Your task to perform on an android device: Go to location settings Image 0: 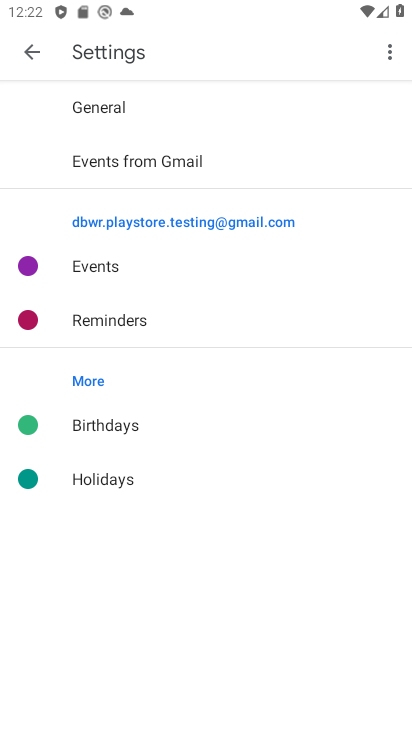
Step 0: press home button
Your task to perform on an android device: Go to location settings Image 1: 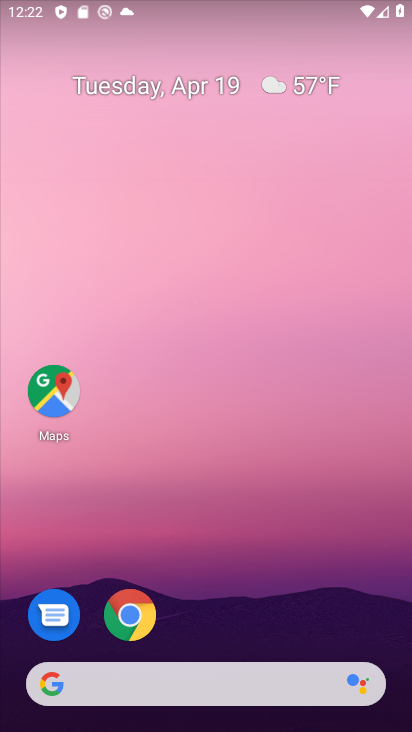
Step 1: drag from (224, 597) to (225, 128)
Your task to perform on an android device: Go to location settings Image 2: 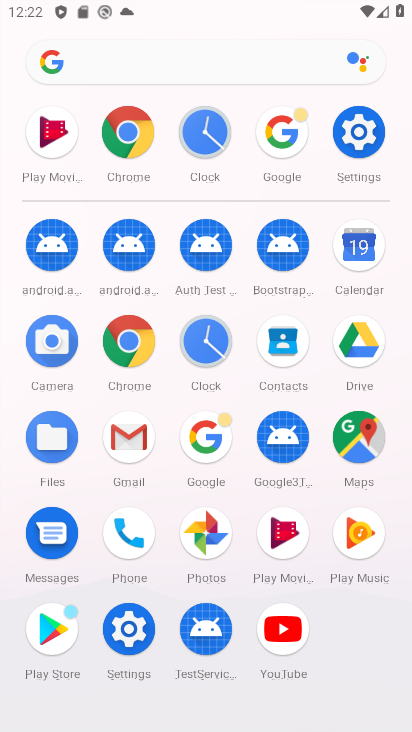
Step 2: click (349, 133)
Your task to perform on an android device: Go to location settings Image 3: 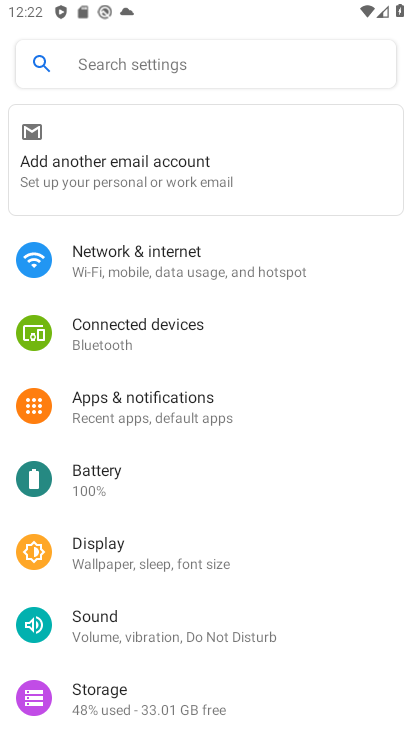
Step 3: drag from (207, 572) to (207, 308)
Your task to perform on an android device: Go to location settings Image 4: 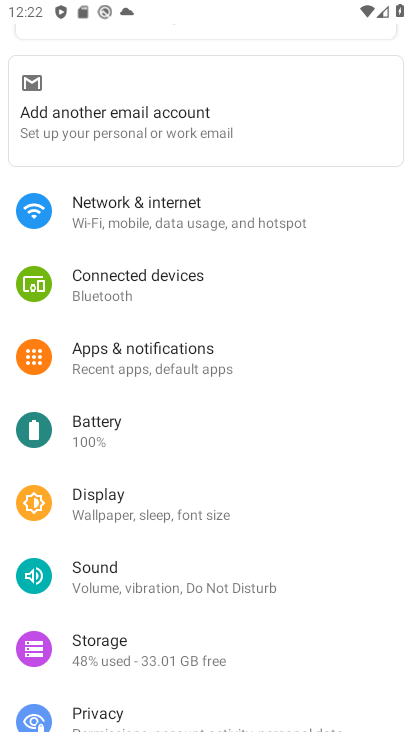
Step 4: drag from (167, 584) to (193, 251)
Your task to perform on an android device: Go to location settings Image 5: 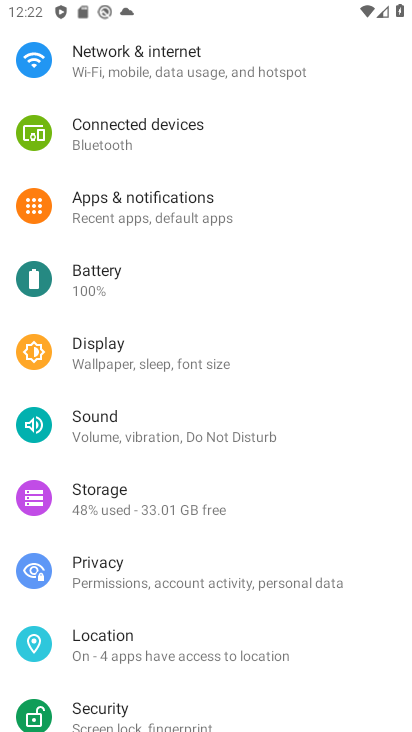
Step 5: click (177, 640)
Your task to perform on an android device: Go to location settings Image 6: 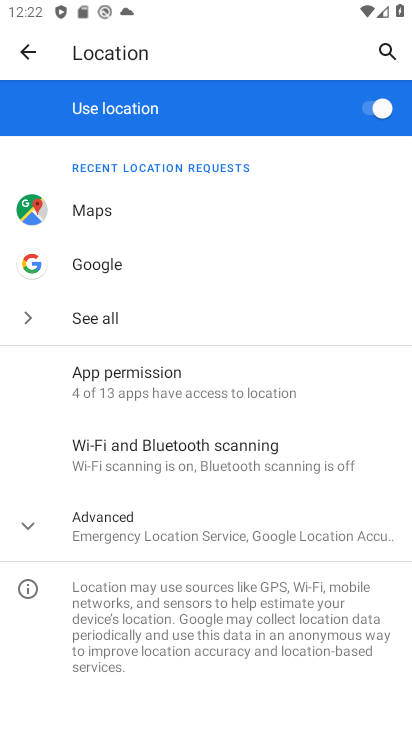
Step 6: drag from (183, 597) to (222, 233)
Your task to perform on an android device: Go to location settings Image 7: 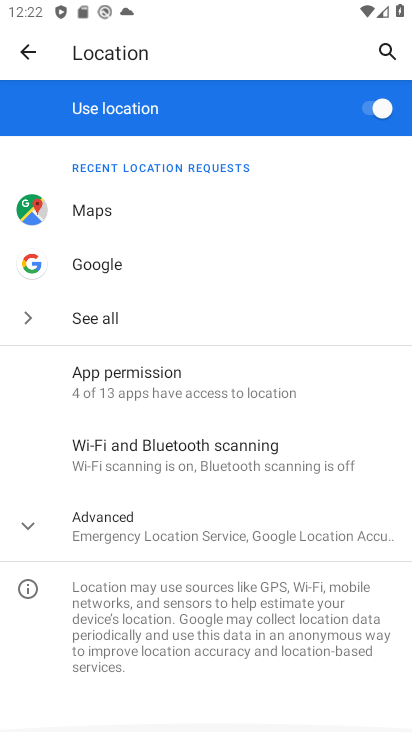
Step 7: click (143, 510)
Your task to perform on an android device: Go to location settings Image 8: 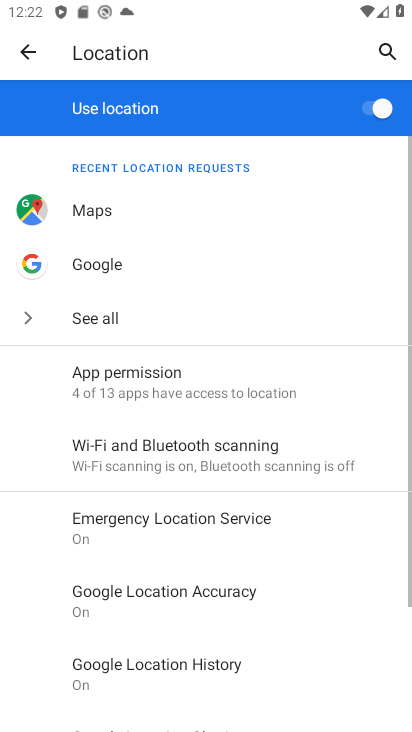
Step 8: drag from (205, 546) to (225, 243)
Your task to perform on an android device: Go to location settings Image 9: 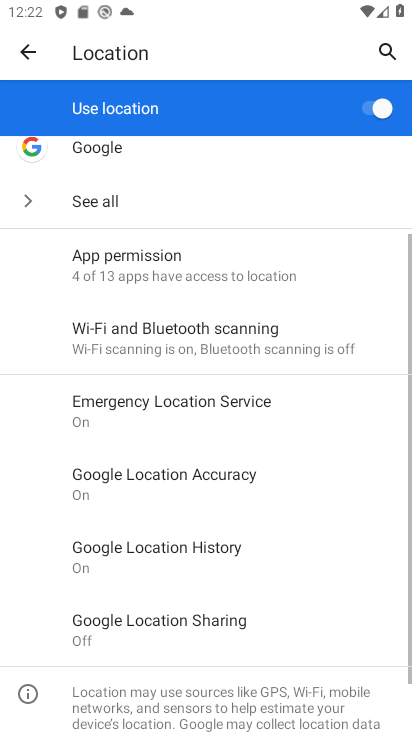
Step 9: click (219, 276)
Your task to perform on an android device: Go to location settings Image 10: 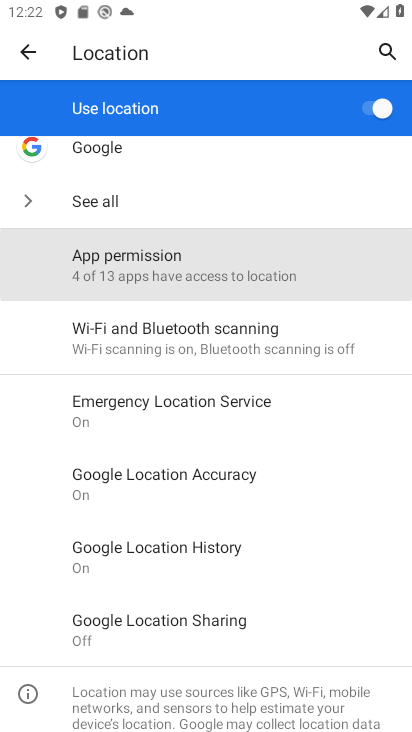
Step 10: task complete